Your task to perform on an android device: Search for the top rated book on goodreads. Image 0: 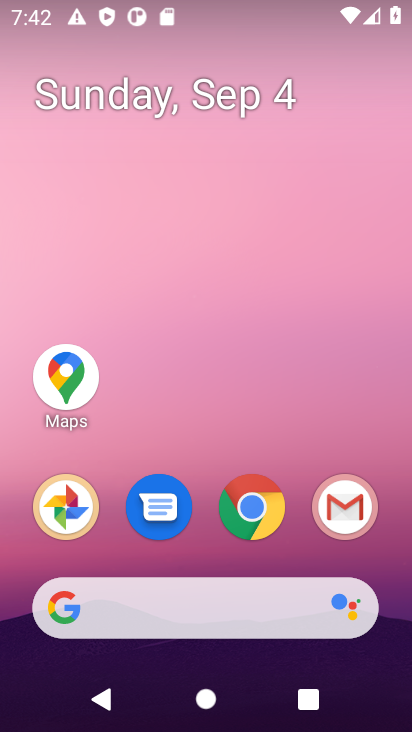
Step 0: click (260, 508)
Your task to perform on an android device: Search for the top rated book on goodreads. Image 1: 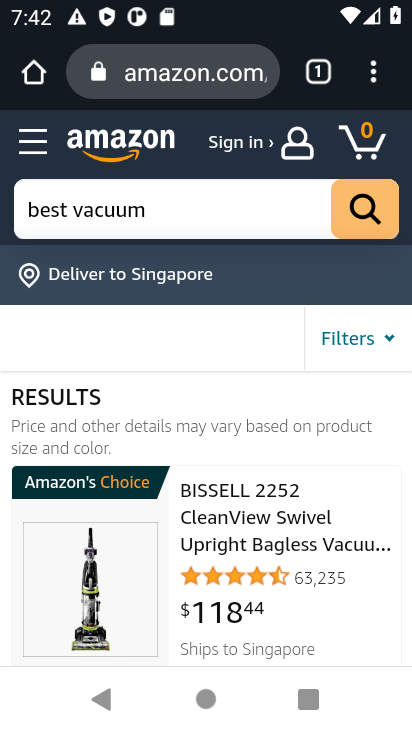
Step 1: click (189, 76)
Your task to perform on an android device: Search for the top rated book on goodreads. Image 2: 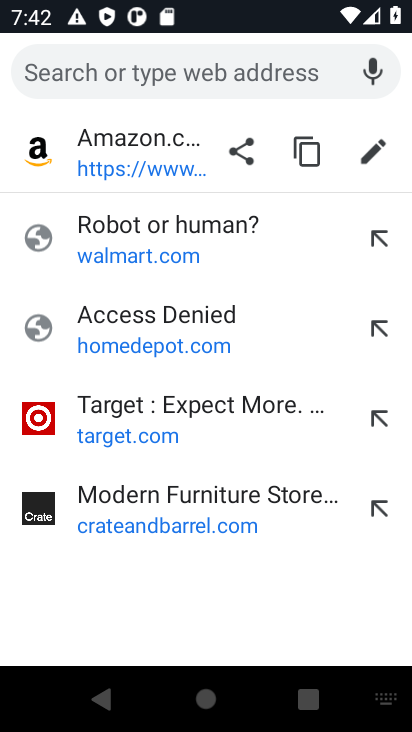
Step 2: type "goodreads"
Your task to perform on an android device: Search for the top rated book on goodreads. Image 3: 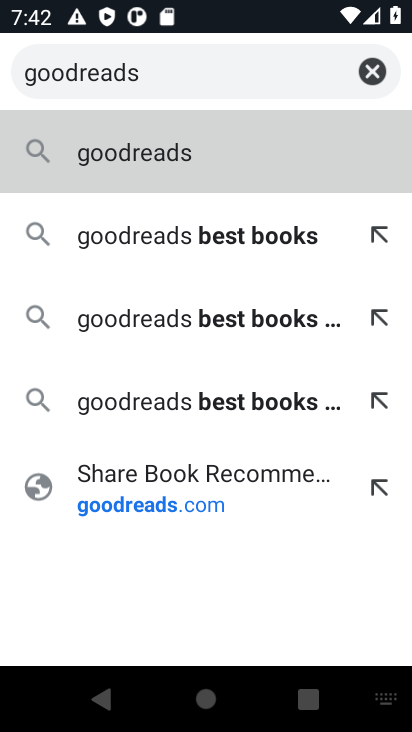
Step 3: click (187, 492)
Your task to perform on an android device: Search for the top rated book on goodreads. Image 4: 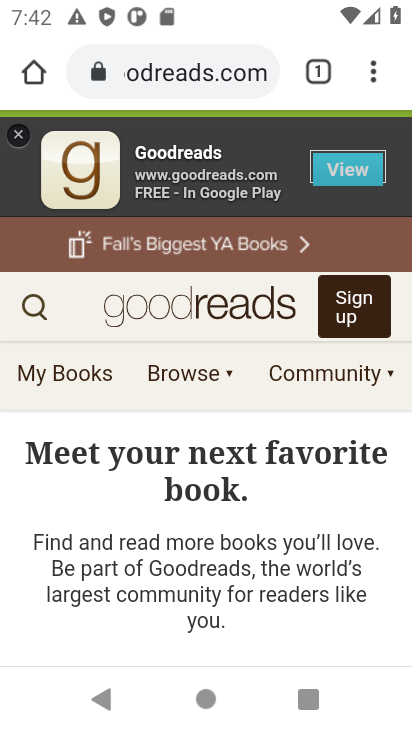
Step 4: click (25, 307)
Your task to perform on an android device: Search for the top rated book on goodreads. Image 5: 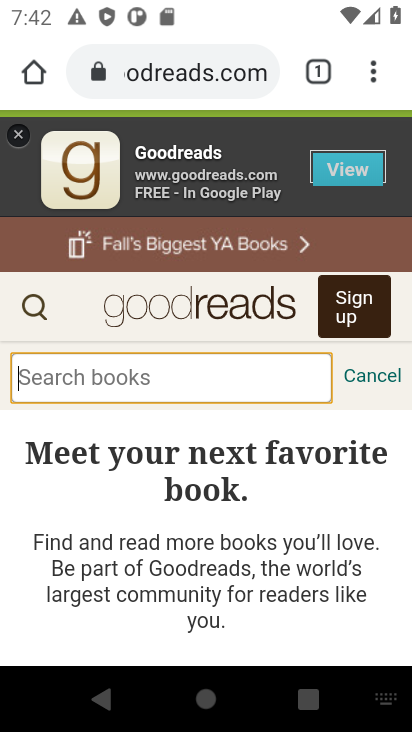
Step 5: click (98, 382)
Your task to perform on an android device: Search for the top rated book on goodreads. Image 6: 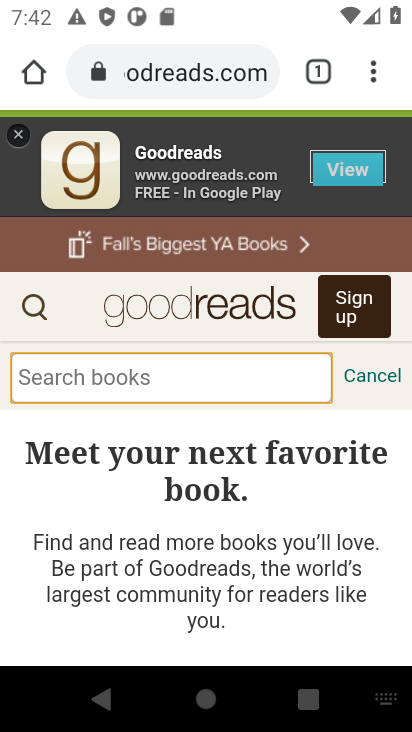
Step 6: type "top rated books"
Your task to perform on an android device: Search for the top rated book on goodreads. Image 7: 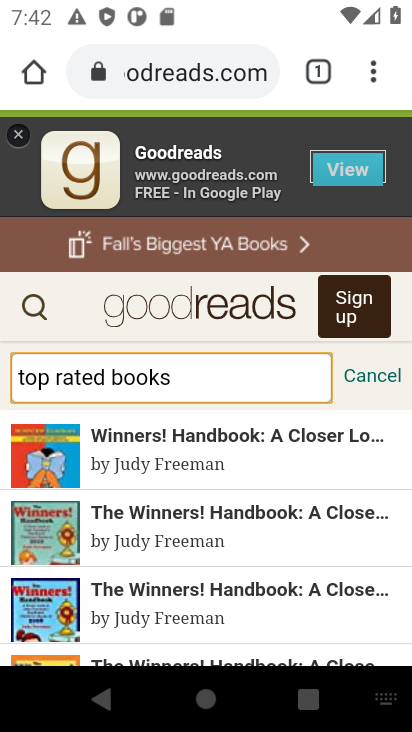
Step 7: press enter
Your task to perform on an android device: Search for the top rated book on goodreads. Image 8: 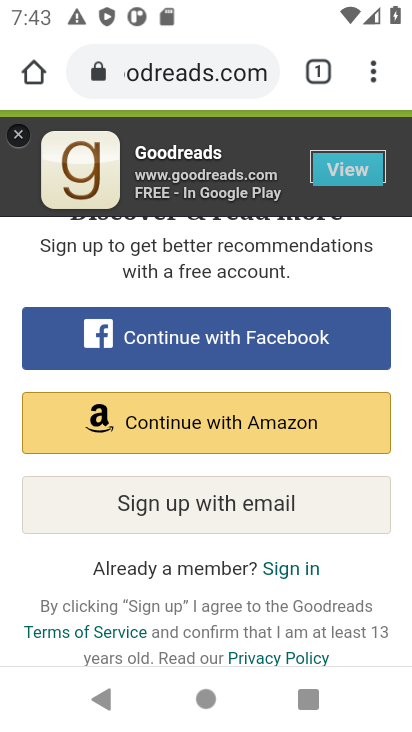
Step 8: task complete